Your task to perform on an android device: Go to ESPN.com Image 0: 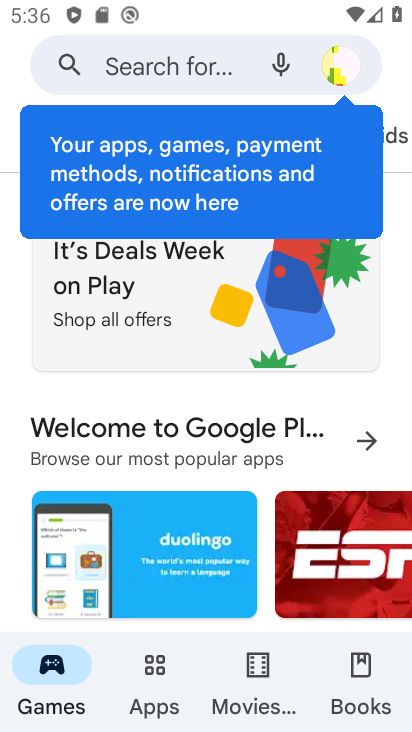
Step 0: press home button
Your task to perform on an android device: Go to ESPN.com Image 1: 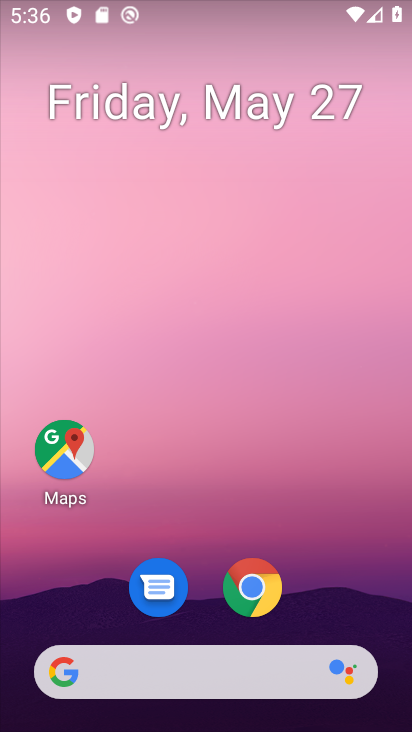
Step 1: drag from (364, 587) to (381, 12)
Your task to perform on an android device: Go to ESPN.com Image 2: 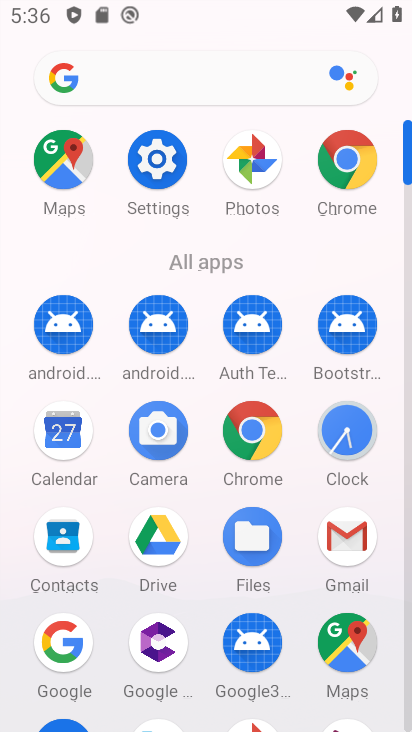
Step 2: click (256, 432)
Your task to perform on an android device: Go to ESPN.com Image 3: 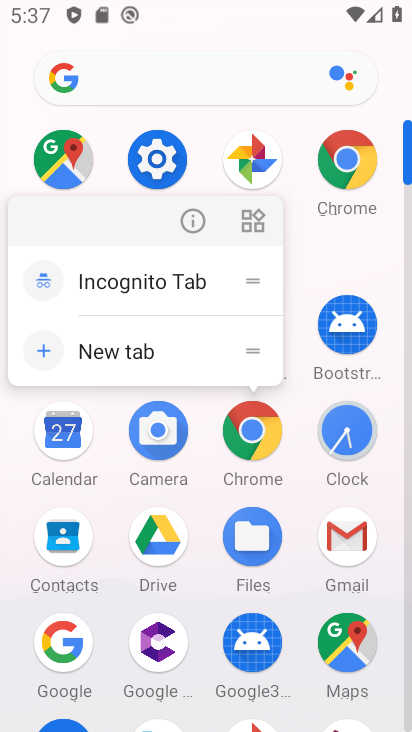
Step 3: click (256, 432)
Your task to perform on an android device: Go to ESPN.com Image 4: 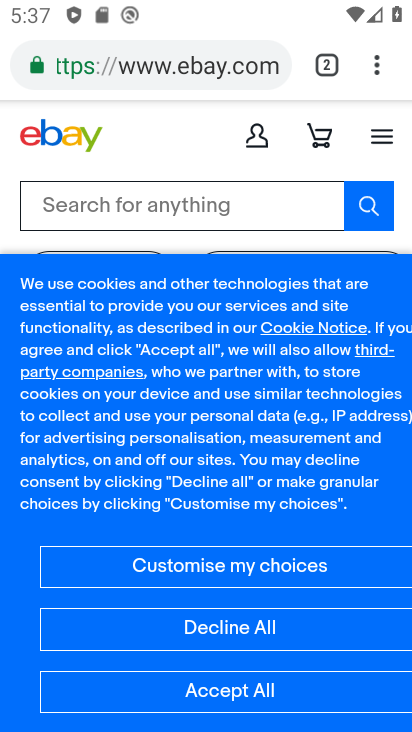
Step 4: click (123, 75)
Your task to perform on an android device: Go to ESPN.com Image 5: 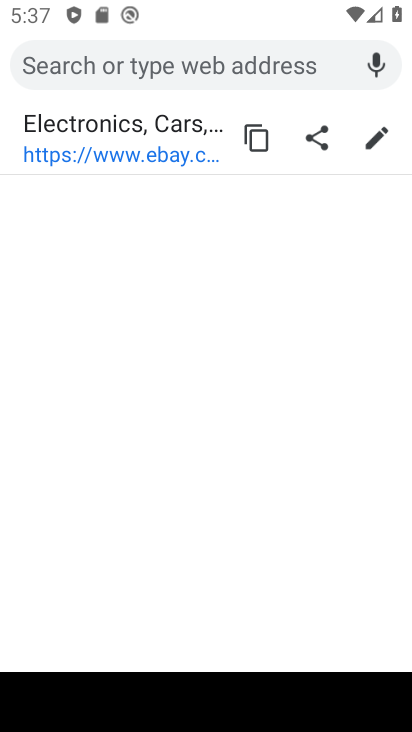
Step 5: type " ESPN.com"
Your task to perform on an android device: Go to ESPN.com Image 6: 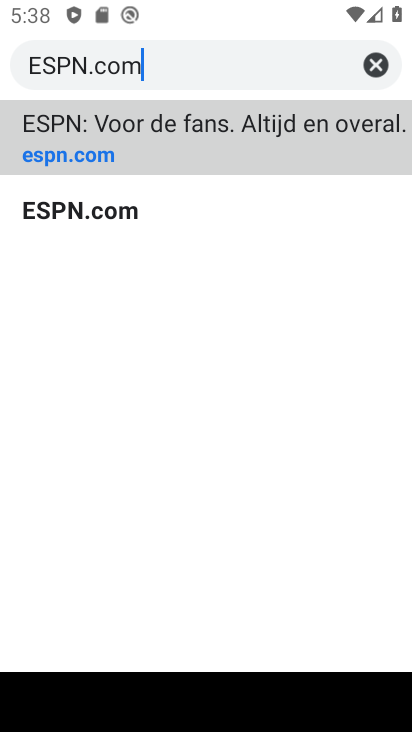
Step 6: click (101, 158)
Your task to perform on an android device: Go to ESPN.com Image 7: 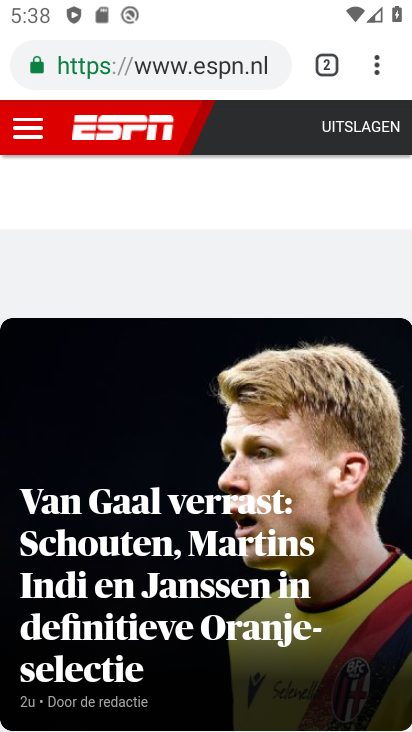
Step 7: task complete